Your task to perform on an android device: open app "Indeed Job Search" Image 0: 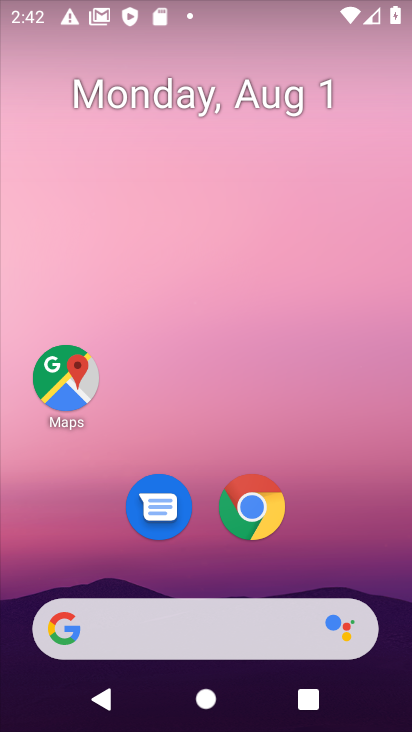
Step 0: drag from (349, 545) to (238, 48)
Your task to perform on an android device: open app "Indeed Job Search" Image 1: 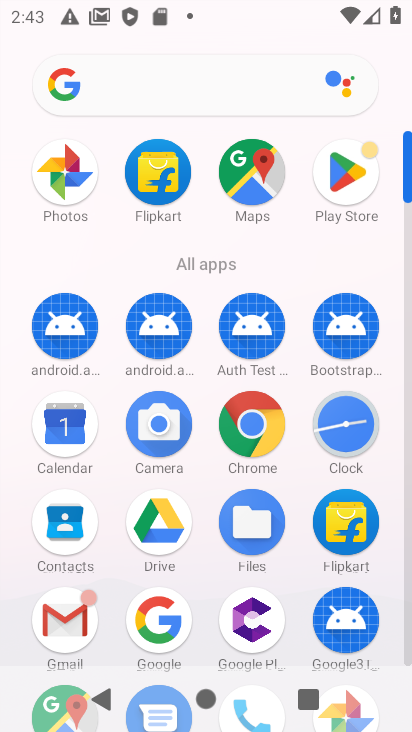
Step 1: click (359, 161)
Your task to perform on an android device: open app "Indeed Job Search" Image 2: 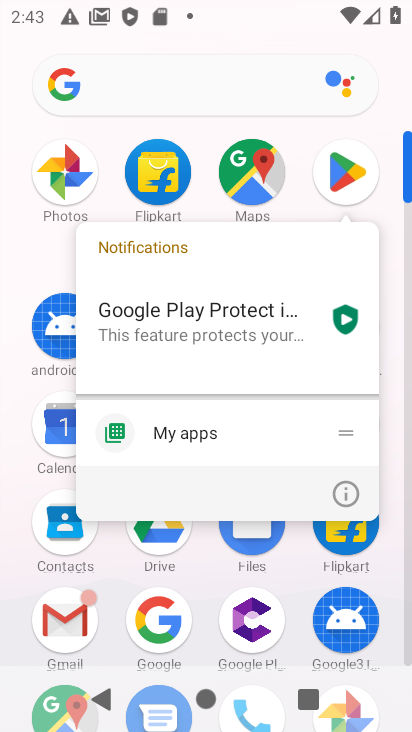
Step 2: click (356, 168)
Your task to perform on an android device: open app "Indeed Job Search" Image 3: 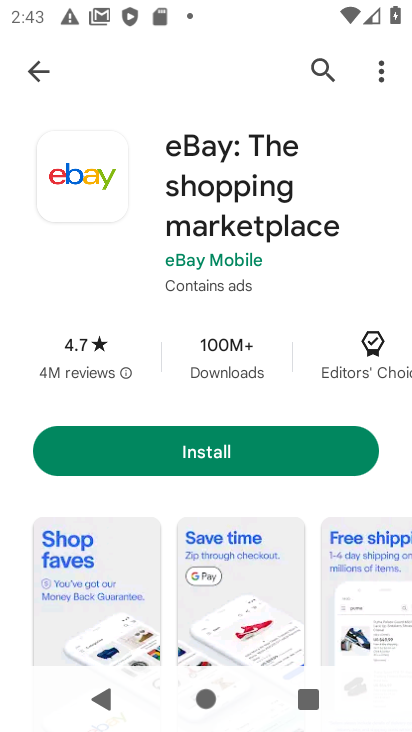
Step 3: click (45, 83)
Your task to perform on an android device: open app "Indeed Job Search" Image 4: 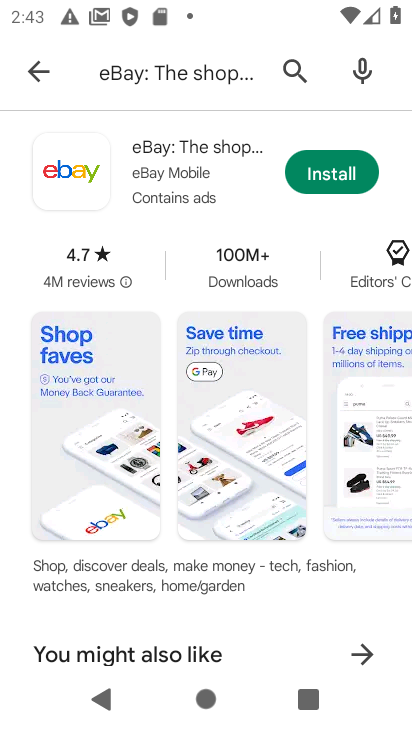
Step 4: click (216, 70)
Your task to perform on an android device: open app "Indeed Job Search" Image 5: 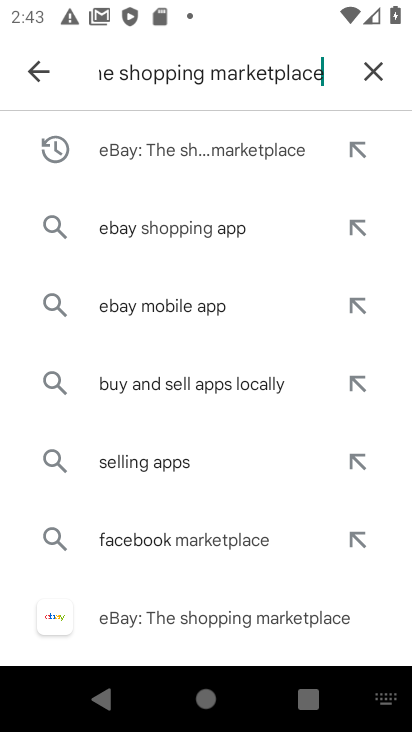
Step 5: click (360, 73)
Your task to perform on an android device: open app "Indeed Job Search" Image 6: 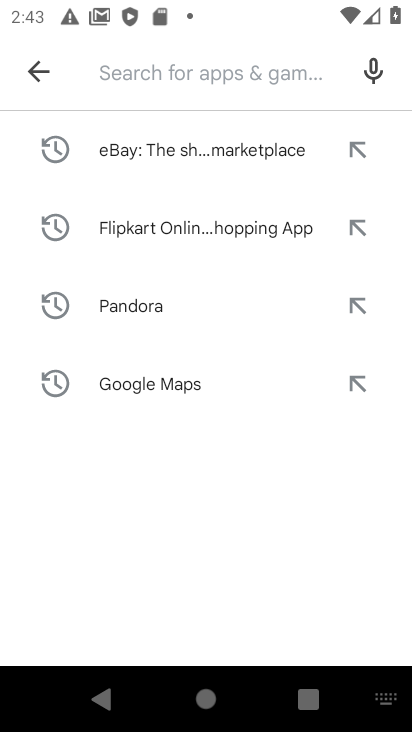
Step 6: type "Indeed Job Search"
Your task to perform on an android device: open app "Indeed Job Search" Image 7: 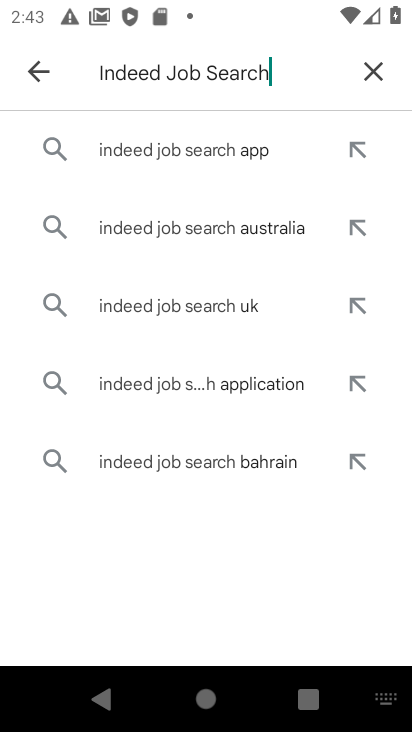
Step 7: press enter
Your task to perform on an android device: open app "Indeed Job Search" Image 8: 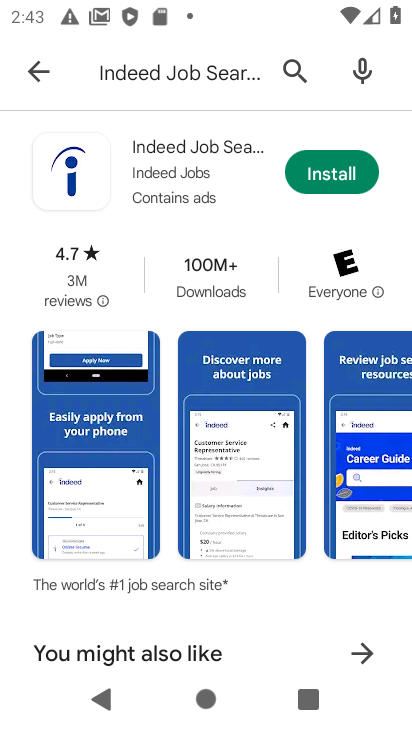
Step 8: task complete